Your task to perform on an android device: turn off javascript in the chrome app Image 0: 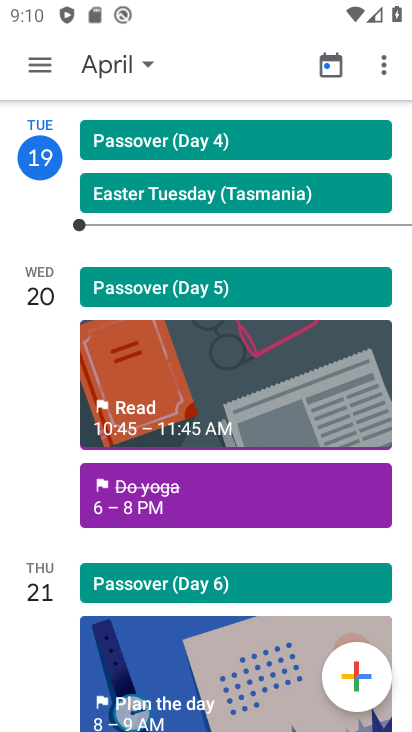
Step 0: press home button
Your task to perform on an android device: turn off javascript in the chrome app Image 1: 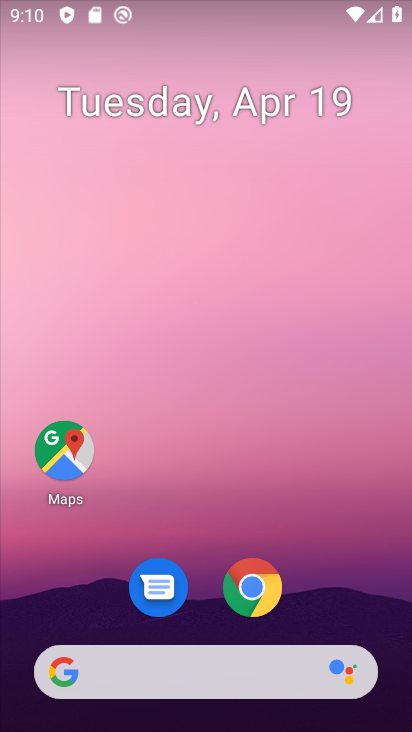
Step 1: drag from (310, 585) to (310, 136)
Your task to perform on an android device: turn off javascript in the chrome app Image 2: 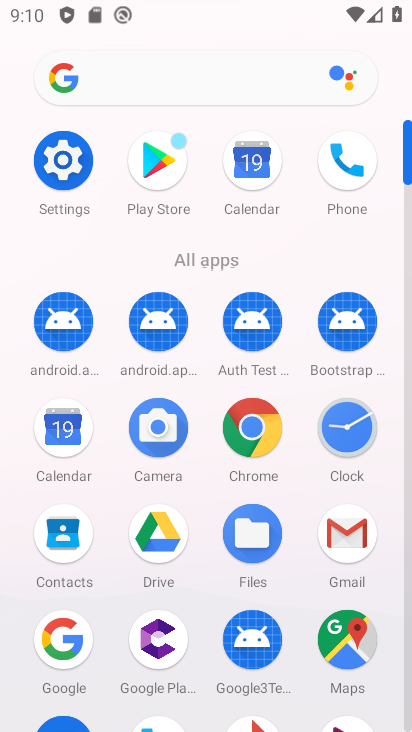
Step 2: click (252, 437)
Your task to perform on an android device: turn off javascript in the chrome app Image 3: 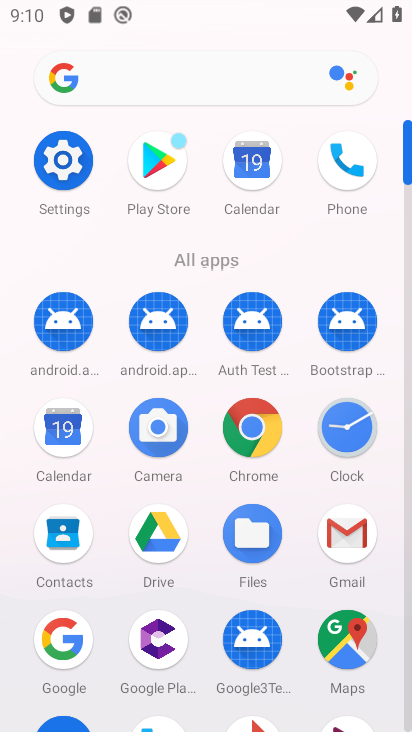
Step 3: click (252, 437)
Your task to perform on an android device: turn off javascript in the chrome app Image 4: 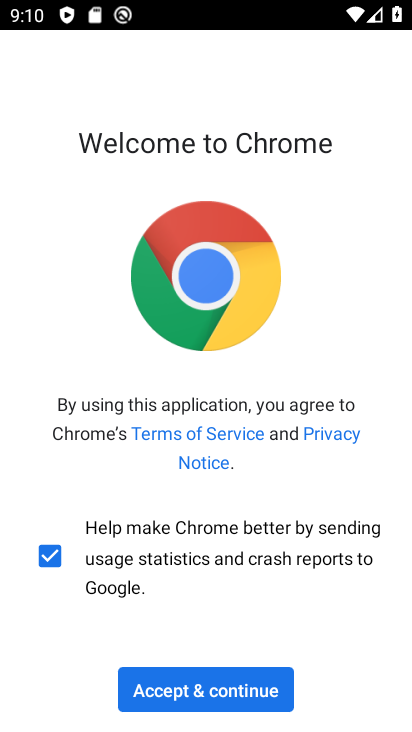
Step 4: click (211, 695)
Your task to perform on an android device: turn off javascript in the chrome app Image 5: 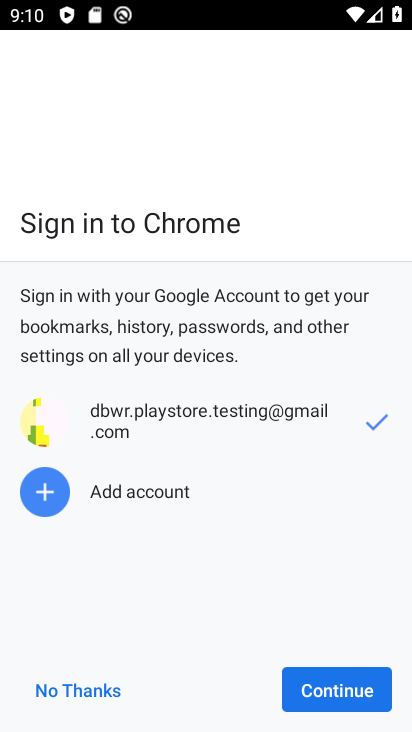
Step 5: click (302, 686)
Your task to perform on an android device: turn off javascript in the chrome app Image 6: 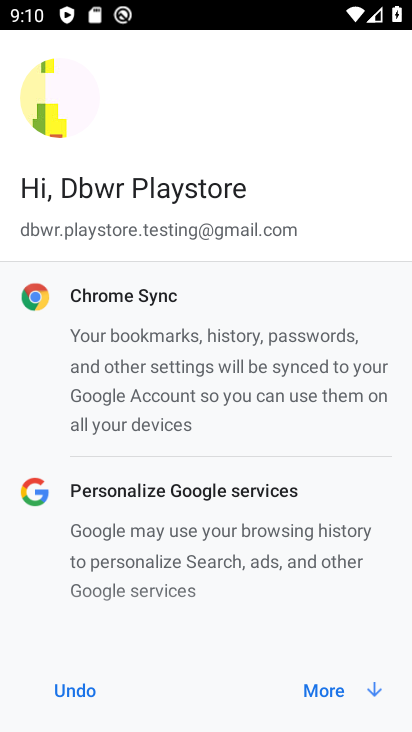
Step 6: click (311, 689)
Your task to perform on an android device: turn off javascript in the chrome app Image 7: 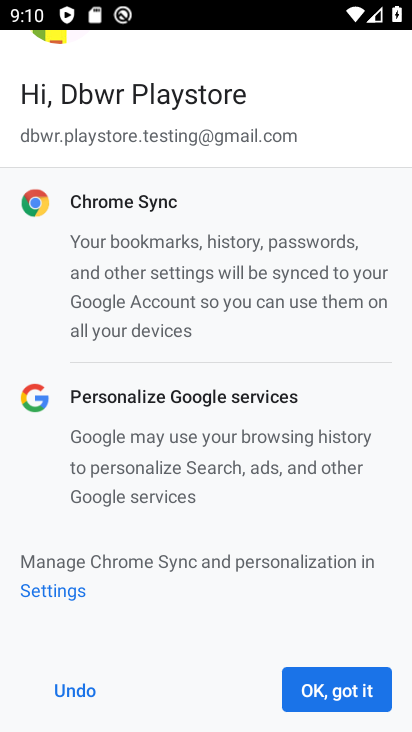
Step 7: click (328, 691)
Your task to perform on an android device: turn off javascript in the chrome app Image 8: 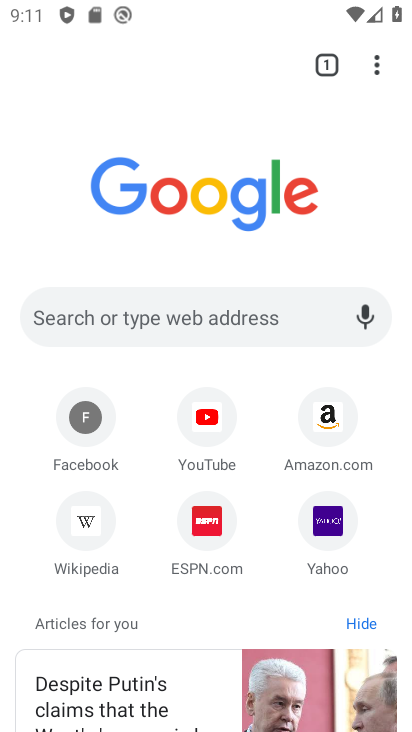
Step 8: drag from (377, 65) to (196, 550)
Your task to perform on an android device: turn off javascript in the chrome app Image 9: 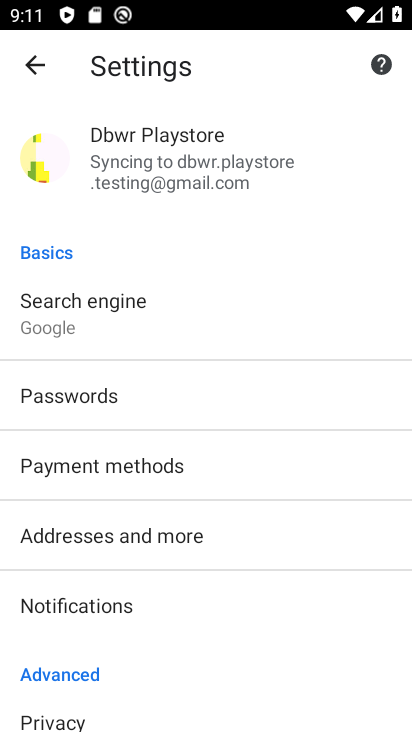
Step 9: drag from (168, 661) to (229, 309)
Your task to perform on an android device: turn off javascript in the chrome app Image 10: 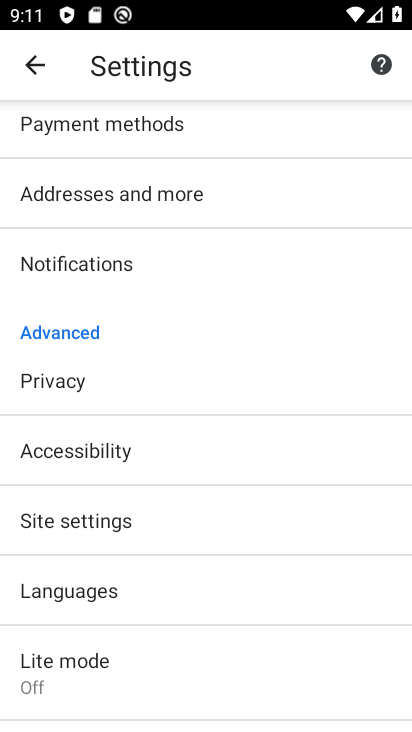
Step 10: click (81, 523)
Your task to perform on an android device: turn off javascript in the chrome app Image 11: 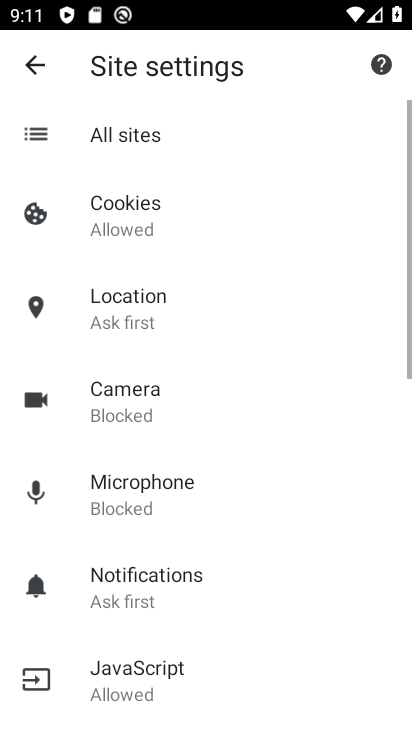
Step 11: drag from (257, 654) to (233, 392)
Your task to perform on an android device: turn off javascript in the chrome app Image 12: 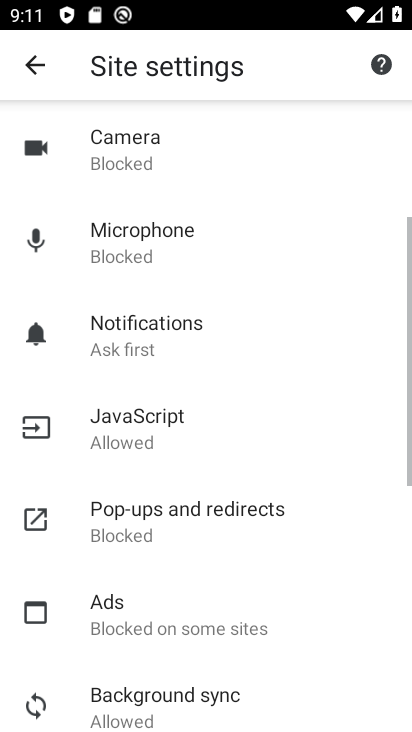
Step 12: click (179, 431)
Your task to perform on an android device: turn off javascript in the chrome app Image 13: 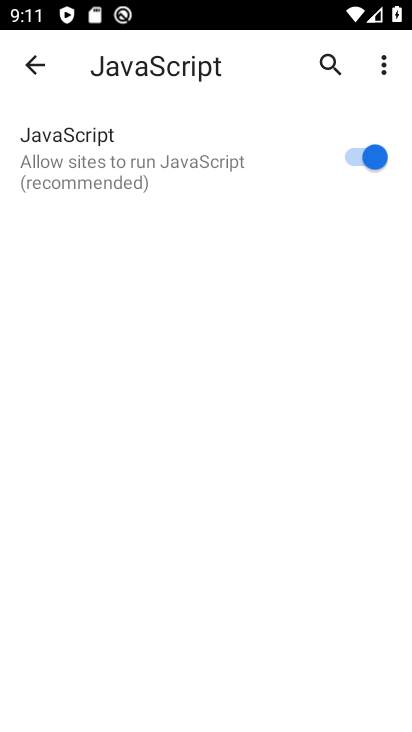
Step 13: click (373, 148)
Your task to perform on an android device: turn off javascript in the chrome app Image 14: 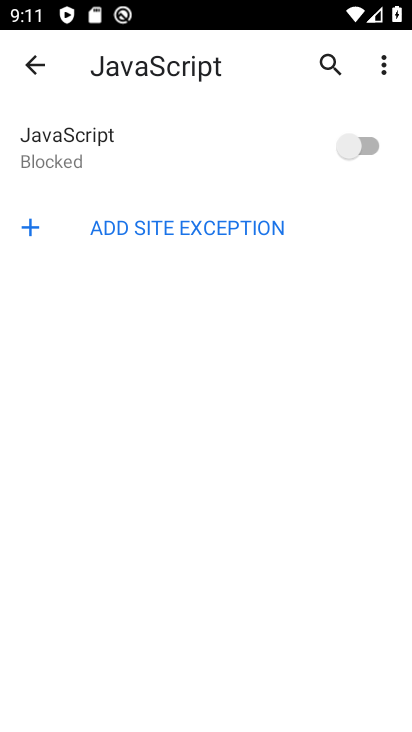
Step 14: task complete